Your task to perform on an android device: open a new tab in the chrome app Image 0: 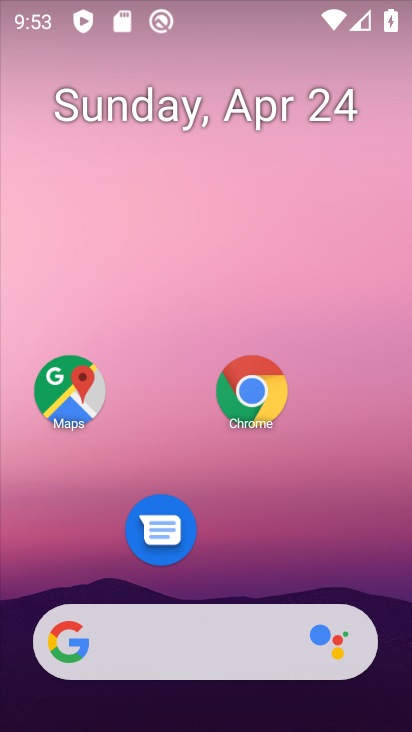
Step 0: click (259, 390)
Your task to perform on an android device: open a new tab in the chrome app Image 1: 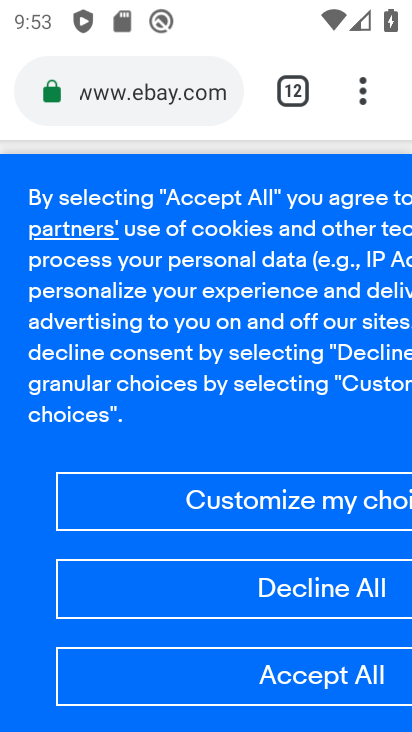
Step 1: click (373, 89)
Your task to perform on an android device: open a new tab in the chrome app Image 2: 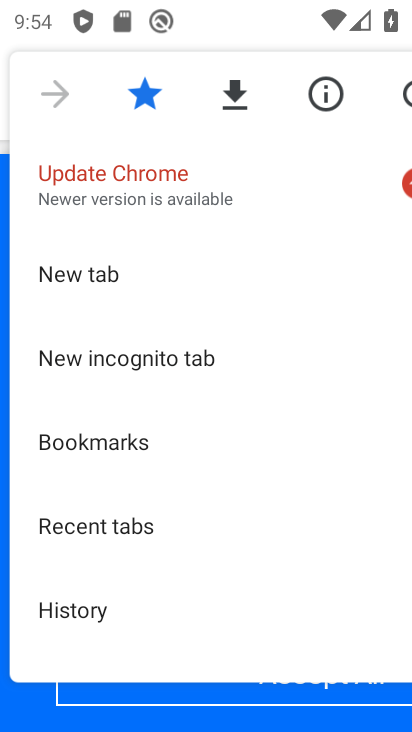
Step 2: click (130, 293)
Your task to perform on an android device: open a new tab in the chrome app Image 3: 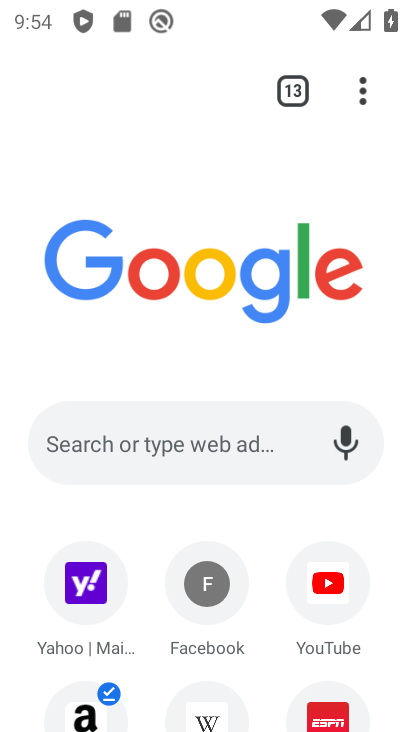
Step 3: task complete